Your task to perform on an android device: toggle location history Image 0: 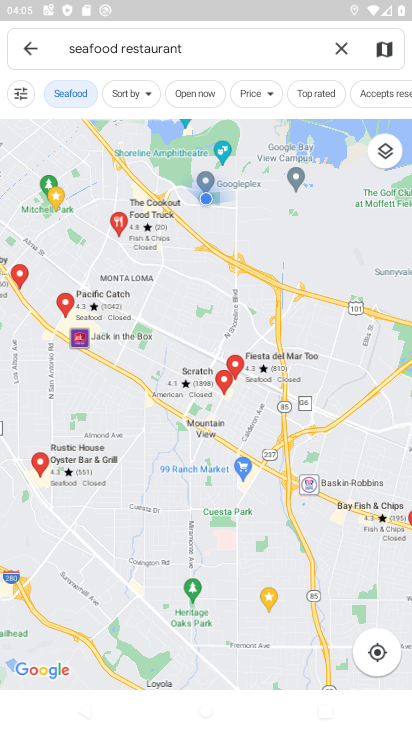
Step 0: press home button
Your task to perform on an android device: toggle location history Image 1: 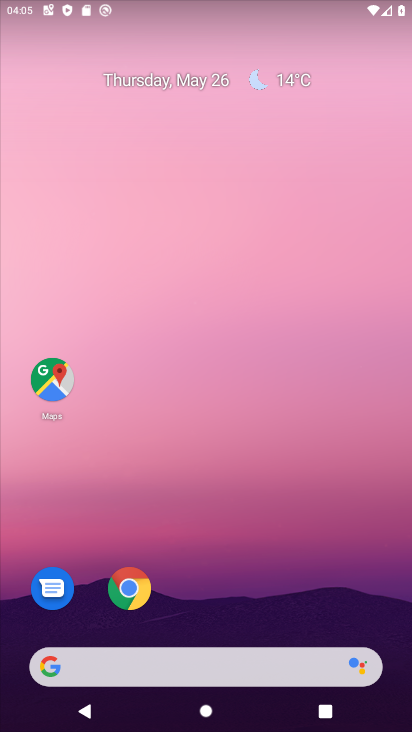
Step 1: drag from (257, 615) to (318, 147)
Your task to perform on an android device: toggle location history Image 2: 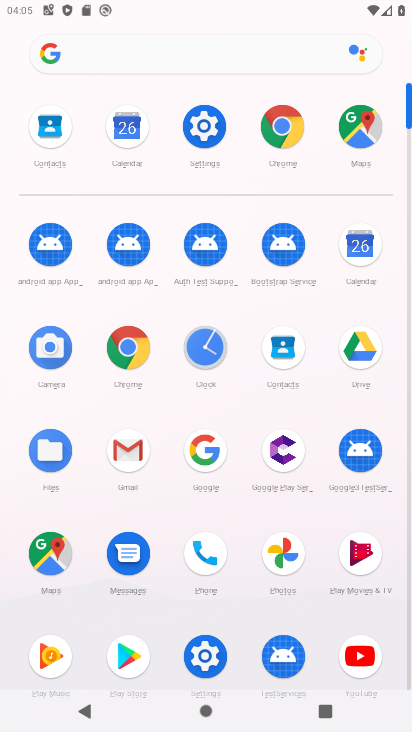
Step 2: click (211, 142)
Your task to perform on an android device: toggle location history Image 3: 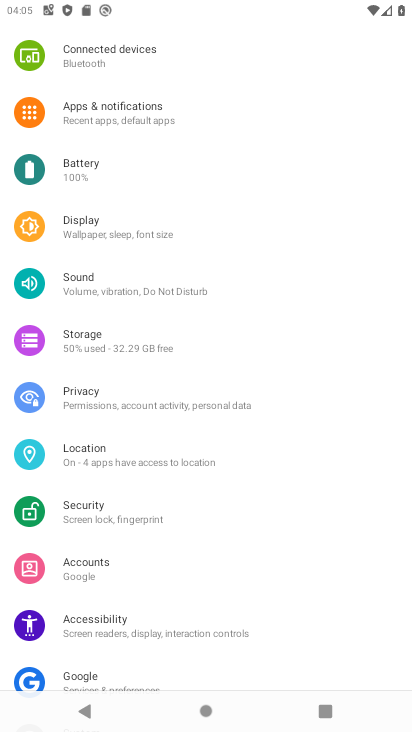
Step 3: click (134, 472)
Your task to perform on an android device: toggle location history Image 4: 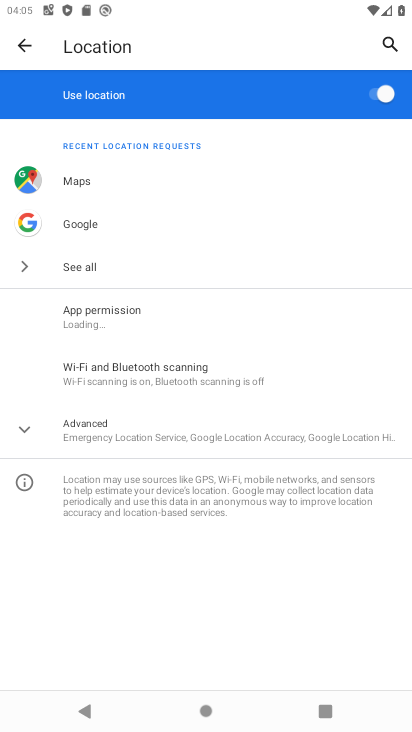
Step 4: click (147, 433)
Your task to perform on an android device: toggle location history Image 5: 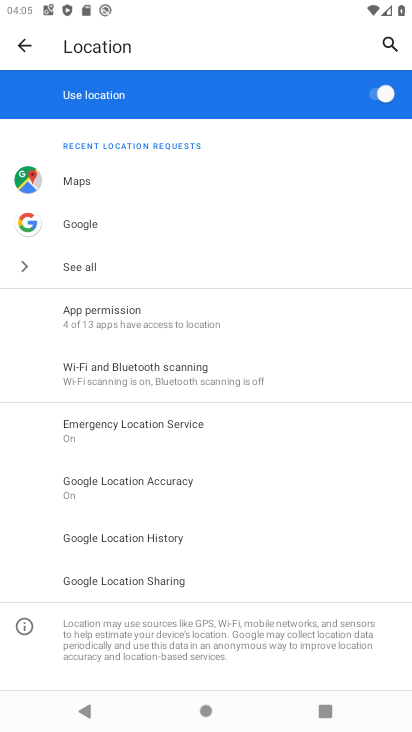
Step 5: click (149, 535)
Your task to perform on an android device: toggle location history Image 6: 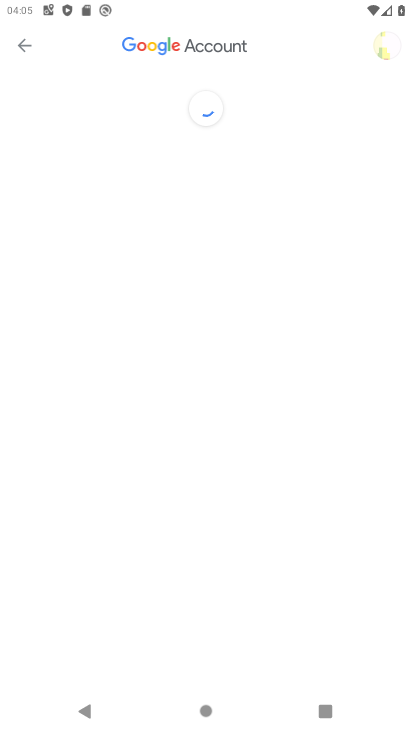
Step 6: task complete